Your task to perform on an android device: check google app version Image 0: 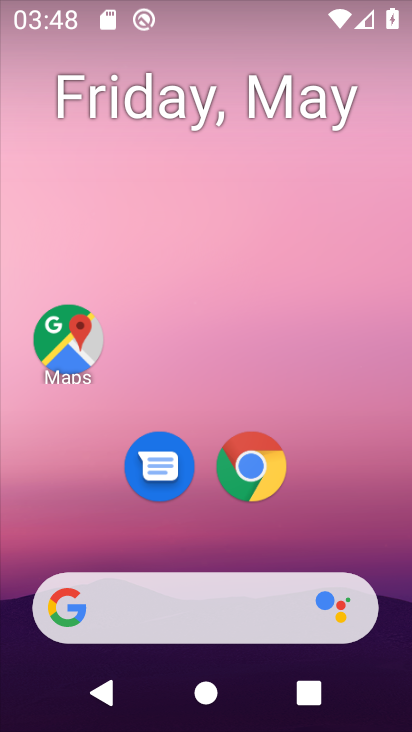
Step 0: drag from (384, 556) to (358, 193)
Your task to perform on an android device: check google app version Image 1: 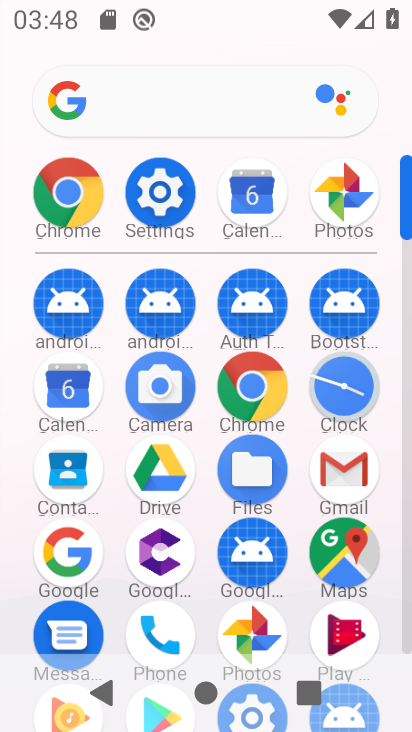
Step 1: click (66, 558)
Your task to perform on an android device: check google app version Image 2: 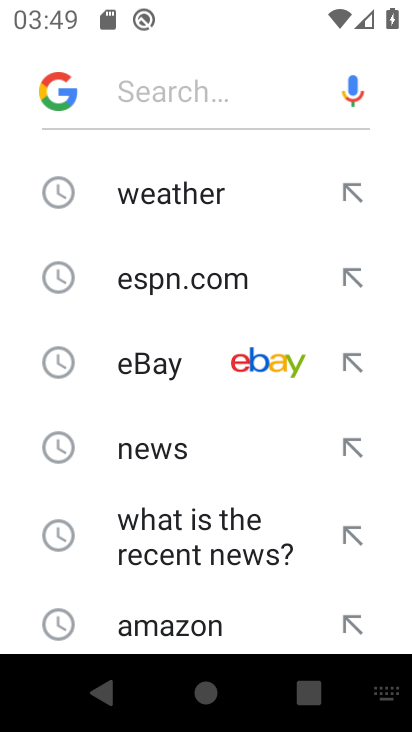
Step 2: press back button
Your task to perform on an android device: check google app version Image 3: 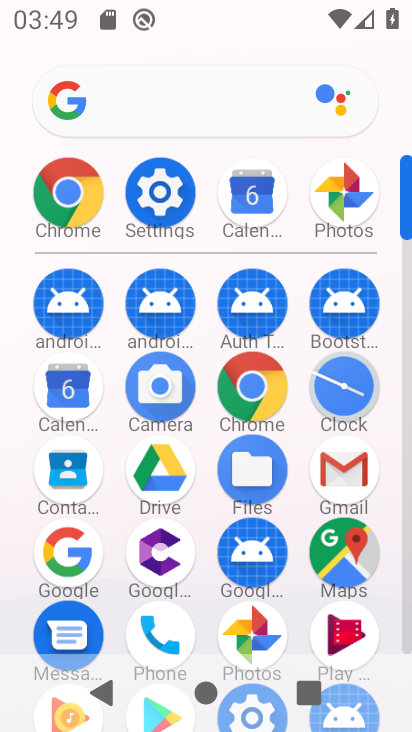
Step 3: click (79, 547)
Your task to perform on an android device: check google app version Image 4: 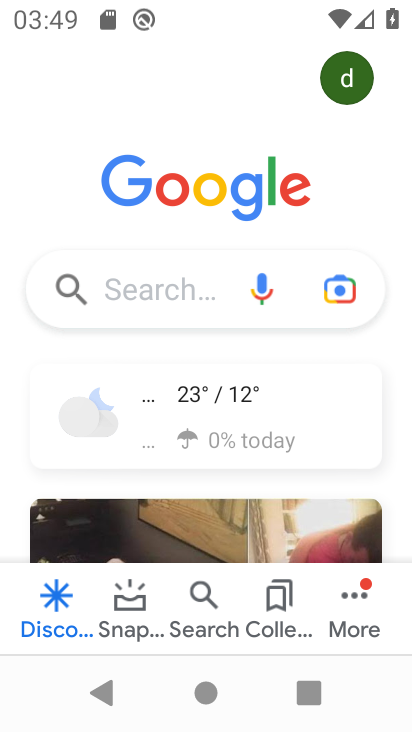
Step 4: click (359, 601)
Your task to perform on an android device: check google app version Image 5: 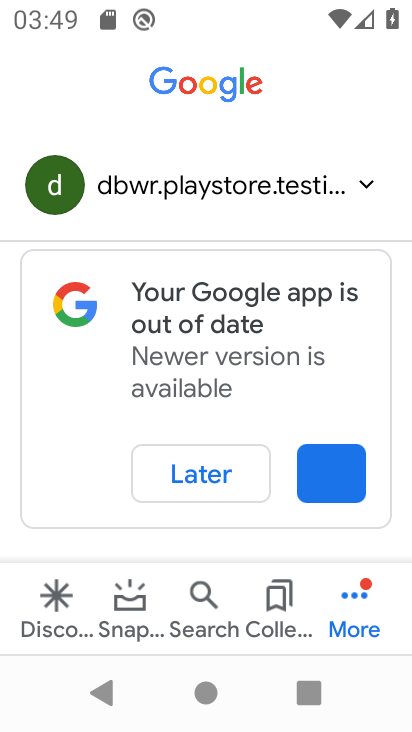
Step 5: click (354, 623)
Your task to perform on an android device: check google app version Image 6: 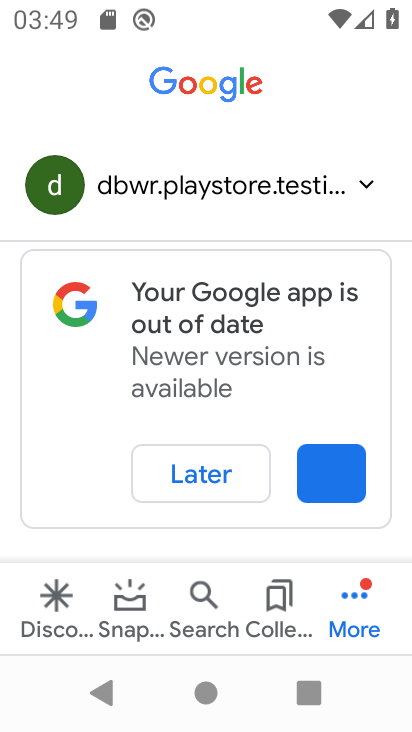
Step 6: click (347, 594)
Your task to perform on an android device: check google app version Image 7: 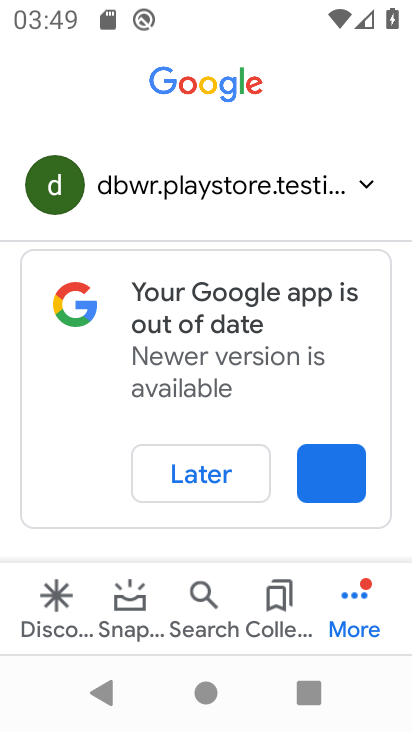
Step 7: click (349, 616)
Your task to perform on an android device: check google app version Image 8: 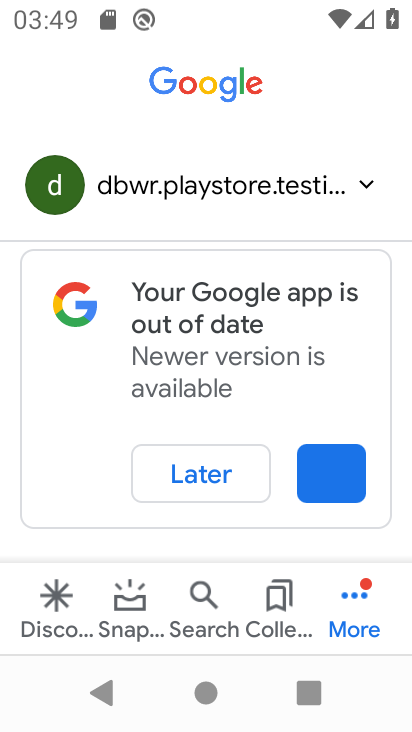
Step 8: task complete